Your task to perform on an android device: stop showing notifications on the lock screen Image 0: 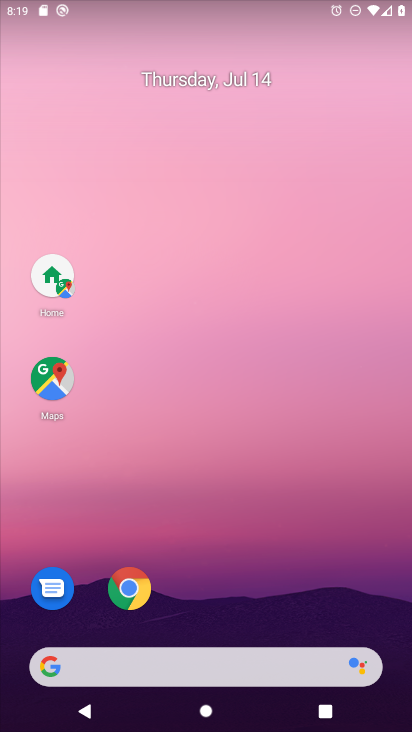
Step 0: drag from (96, 602) to (282, 154)
Your task to perform on an android device: stop showing notifications on the lock screen Image 1: 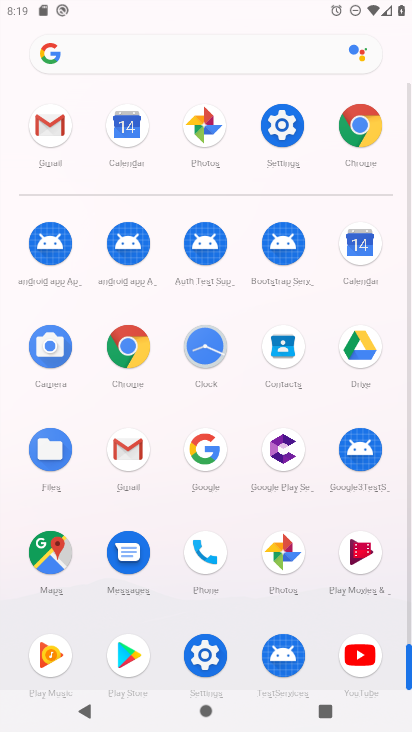
Step 1: click (207, 652)
Your task to perform on an android device: stop showing notifications on the lock screen Image 2: 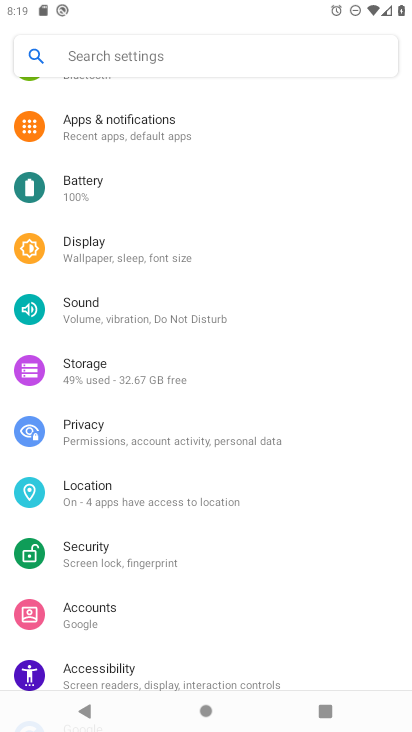
Step 2: click (133, 137)
Your task to perform on an android device: stop showing notifications on the lock screen Image 3: 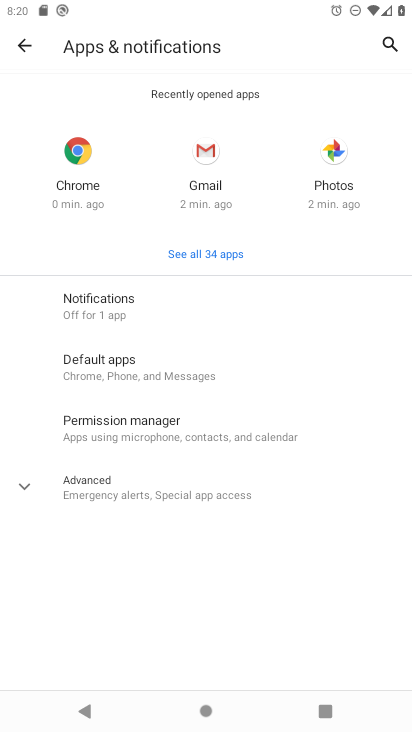
Step 3: click (87, 473)
Your task to perform on an android device: stop showing notifications on the lock screen Image 4: 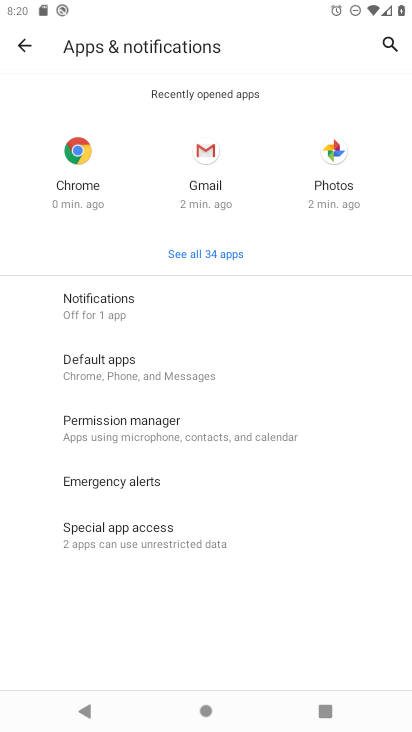
Step 4: click (115, 300)
Your task to perform on an android device: stop showing notifications on the lock screen Image 5: 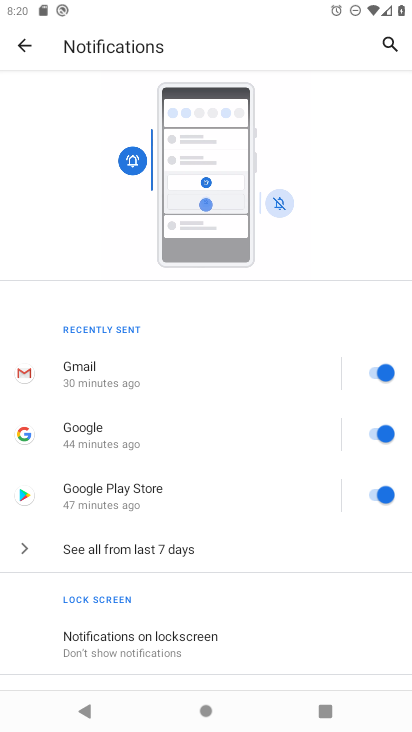
Step 5: task complete